Your task to perform on an android device: toggle priority inbox in the gmail app Image 0: 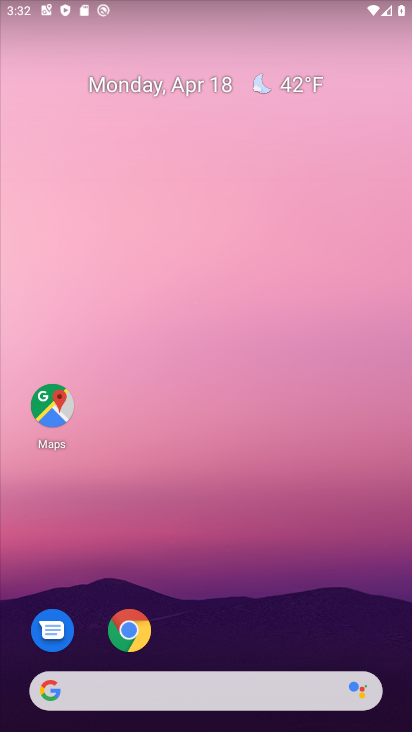
Step 0: drag from (275, 619) to (208, 62)
Your task to perform on an android device: toggle priority inbox in the gmail app Image 1: 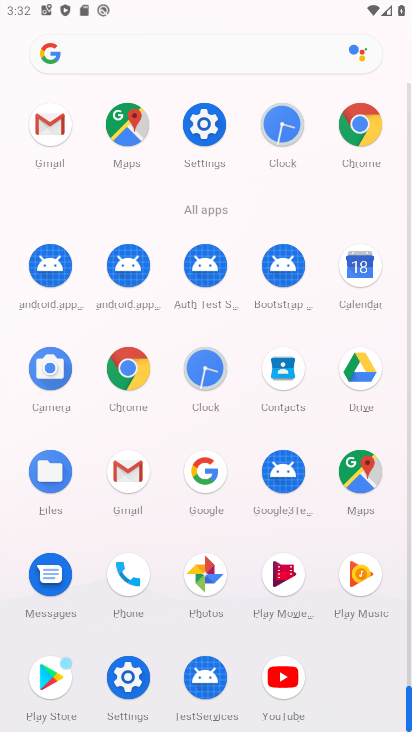
Step 1: click (120, 461)
Your task to perform on an android device: toggle priority inbox in the gmail app Image 2: 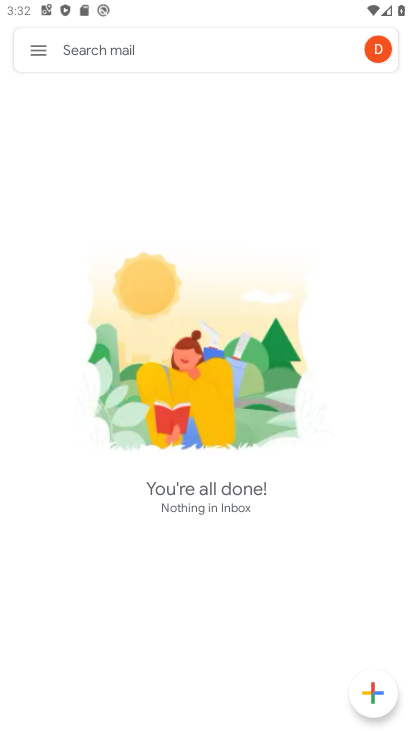
Step 2: click (36, 42)
Your task to perform on an android device: toggle priority inbox in the gmail app Image 3: 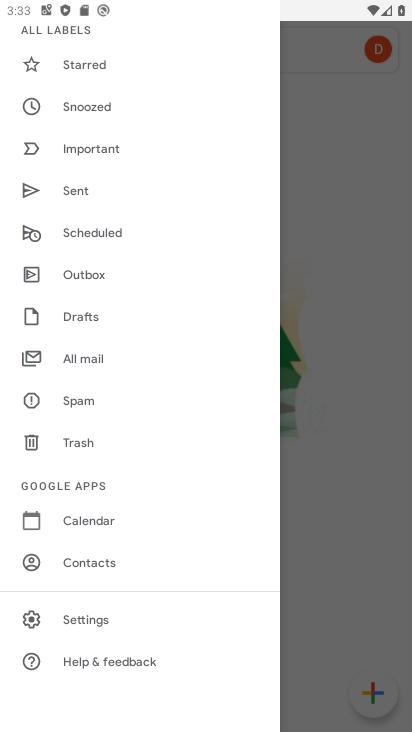
Step 3: click (114, 621)
Your task to perform on an android device: toggle priority inbox in the gmail app Image 4: 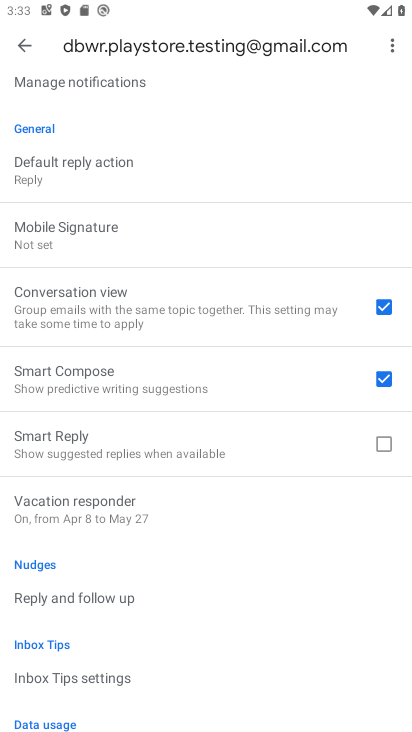
Step 4: drag from (104, 159) to (204, 704)
Your task to perform on an android device: toggle priority inbox in the gmail app Image 5: 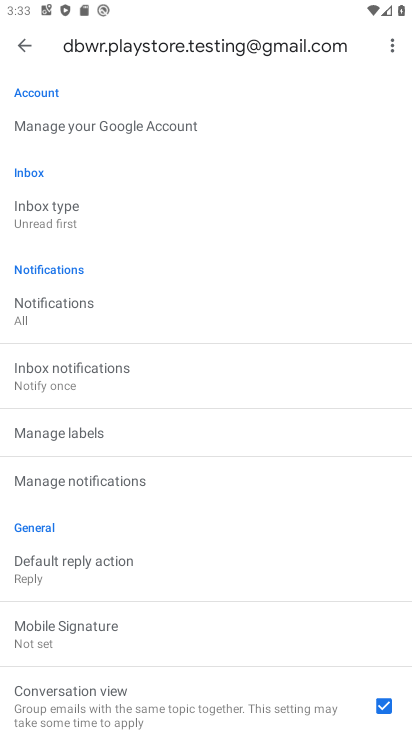
Step 5: click (80, 205)
Your task to perform on an android device: toggle priority inbox in the gmail app Image 6: 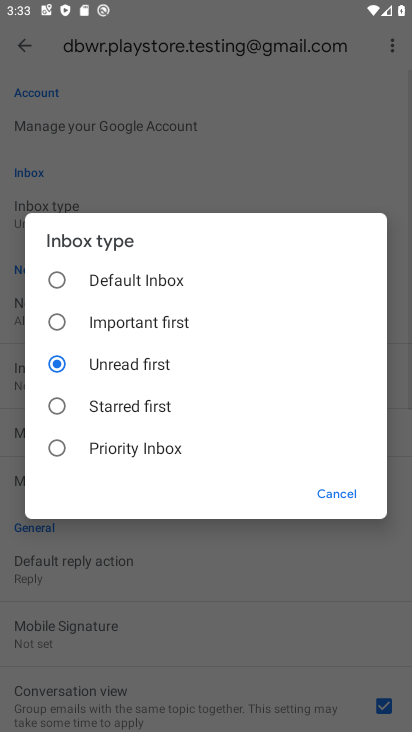
Step 6: click (137, 452)
Your task to perform on an android device: toggle priority inbox in the gmail app Image 7: 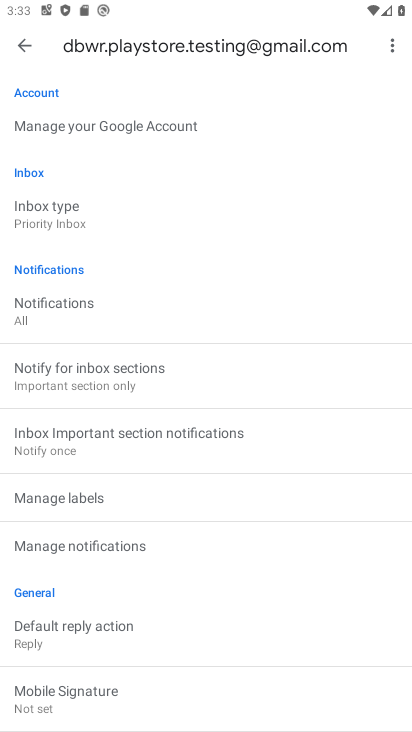
Step 7: task complete